Your task to perform on an android device: Open the web browser Image 0: 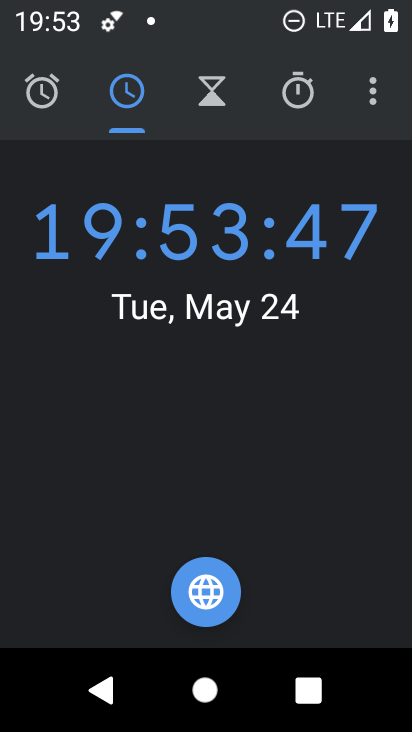
Step 0: press home button
Your task to perform on an android device: Open the web browser Image 1: 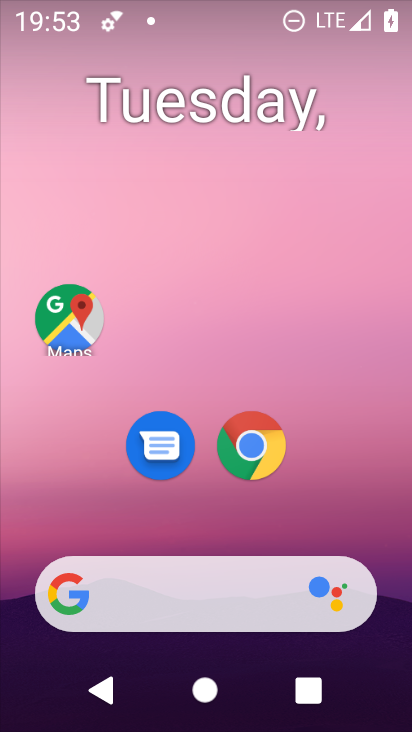
Step 1: click (246, 451)
Your task to perform on an android device: Open the web browser Image 2: 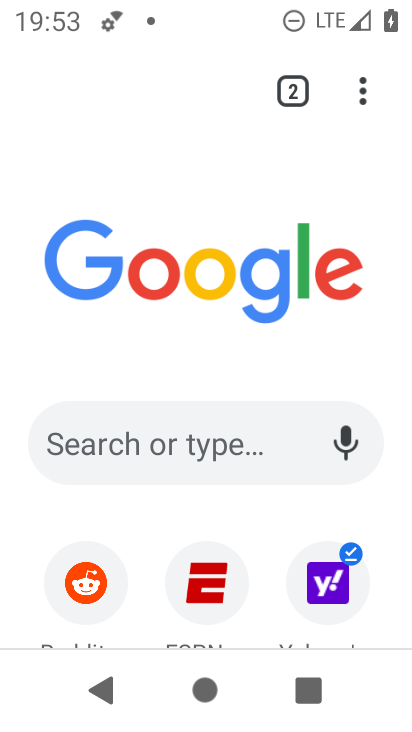
Step 2: task complete